Your task to perform on an android device: toggle notifications settings in the gmail app Image 0: 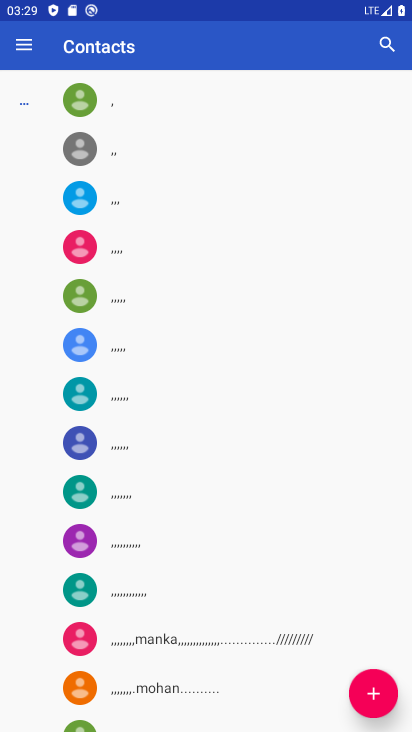
Step 0: press home button
Your task to perform on an android device: toggle notifications settings in the gmail app Image 1: 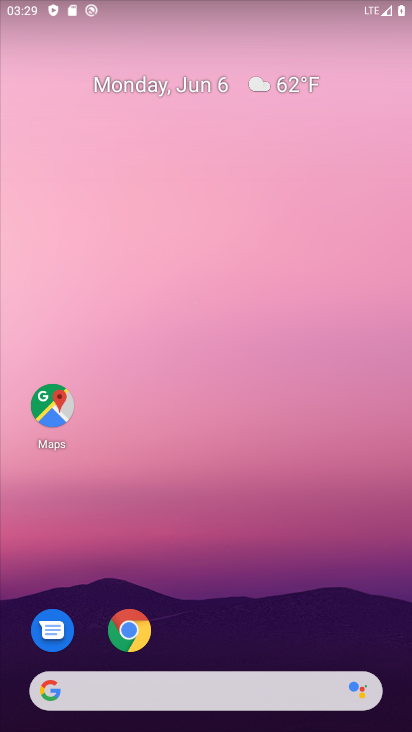
Step 1: drag from (204, 654) to (250, 43)
Your task to perform on an android device: toggle notifications settings in the gmail app Image 2: 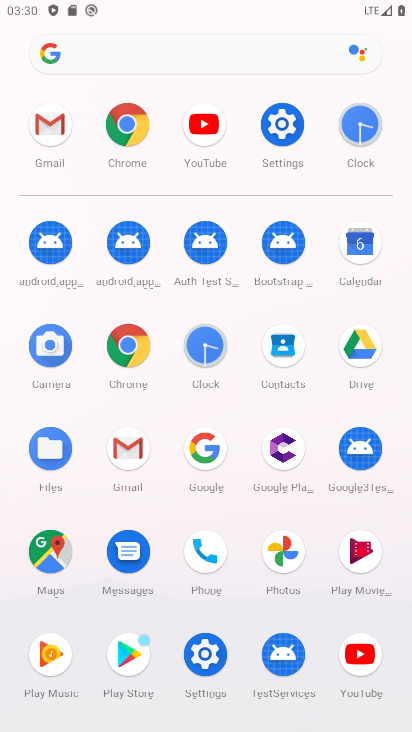
Step 2: click (142, 453)
Your task to perform on an android device: toggle notifications settings in the gmail app Image 3: 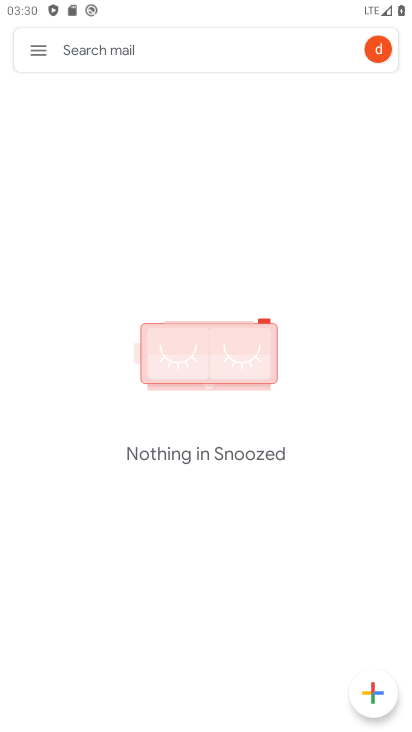
Step 3: press back button
Your task to perform on an android device: toggle notifications settings in the gmail app Image 4: 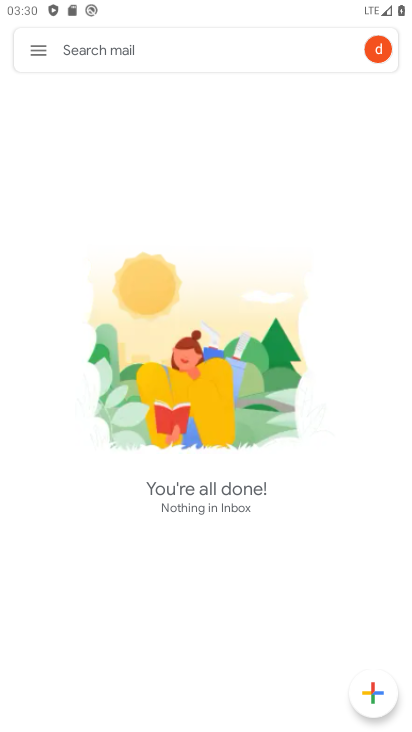
Step 4: press back button
Your task to perform on an android device: toggle notifications settings in the gmail app Image 5: 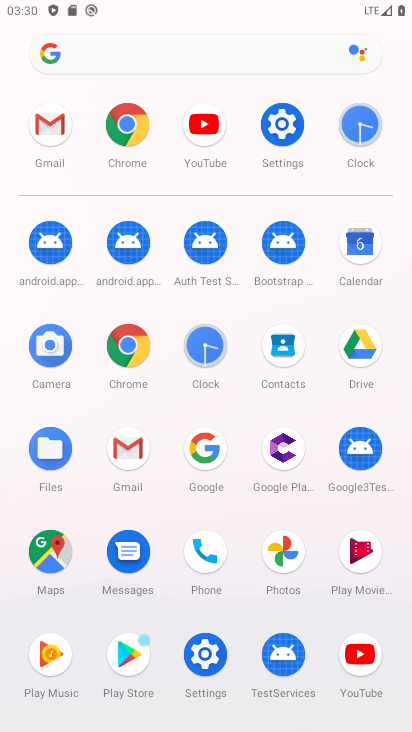
Step 5: click (133, 442)
Your task to perform on an android device: toggle notifications settings in the gmail app Image 6: 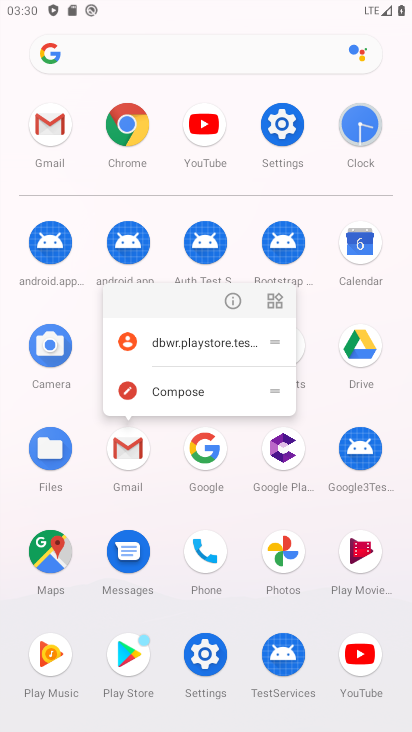
Step 6: click (246, 296)
Your task to perform on an android device: toggle notifications settings in the gmail app Image 7: 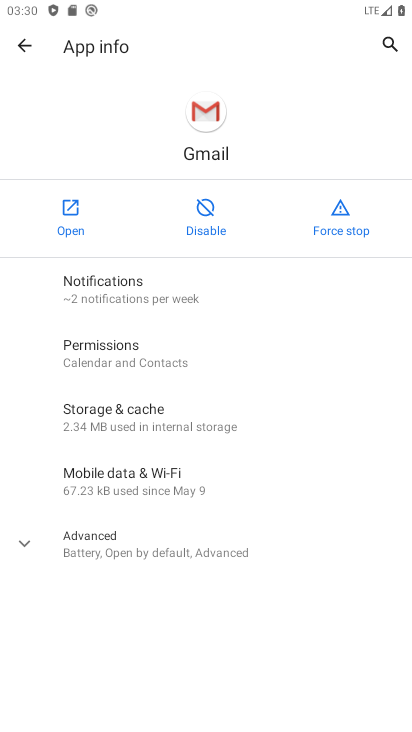
Step 7: click (109, 245)
Your task to perform on an android device: toggle notifications settings in the gmail app Image 8: 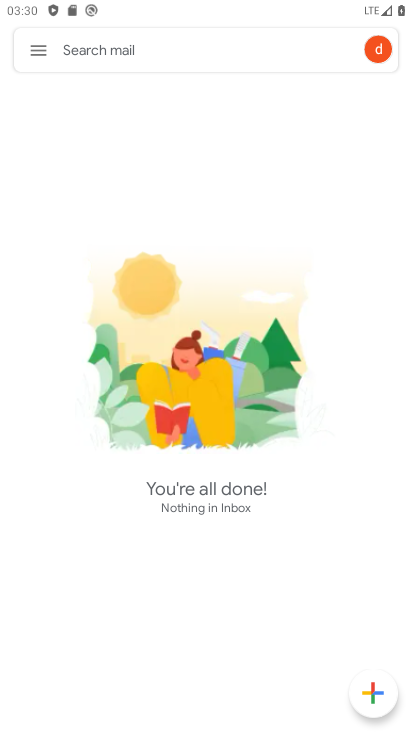
Step 8: press back button
Your task to perform on an android device: toggle notifications settings in the gmail app Image 9: 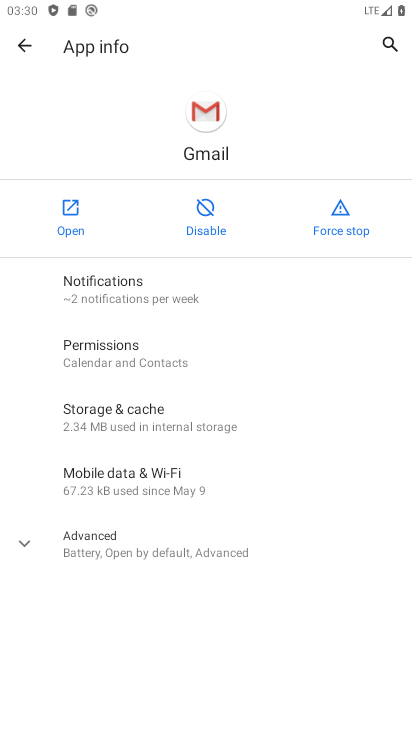
Step 9: click (132, 275)
Your task to perform on an android device: toggle notifications settings in the gmail app Image 10: 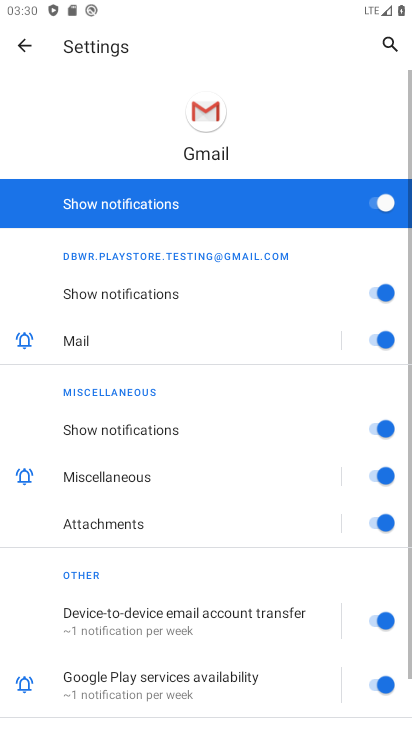
Step 10: click (303, 200)
Your task to perform on an android device: toggle notifications settings in the gmail app Image 11: 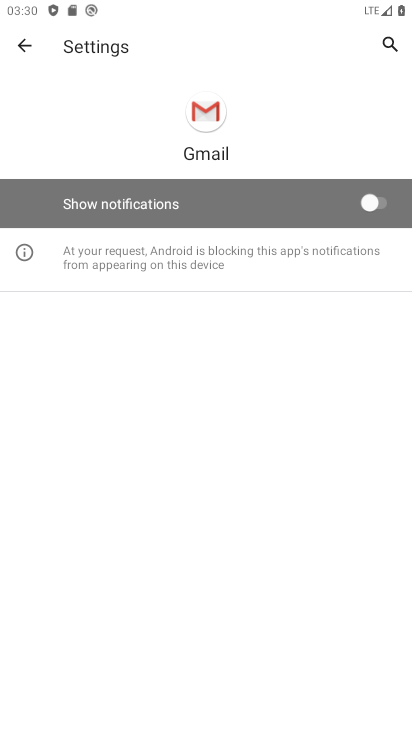
Step 11: task complete